Your task to perform on an android device: open wifi settings Image 0: 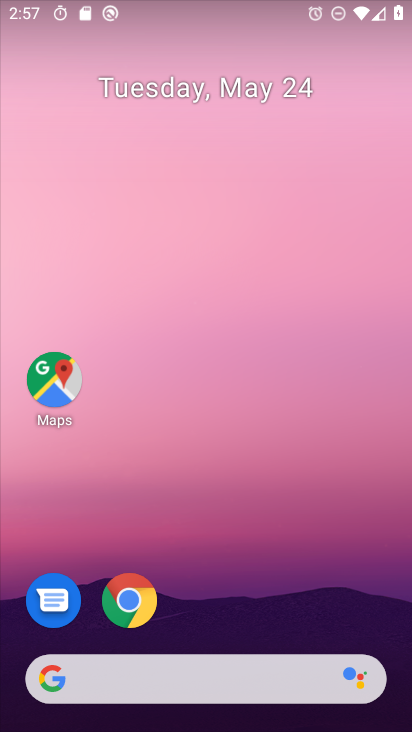
Step 0: drag from (277, 492) to (285, 177)
Your task to perform on an android device: open wifi settings Image 1: 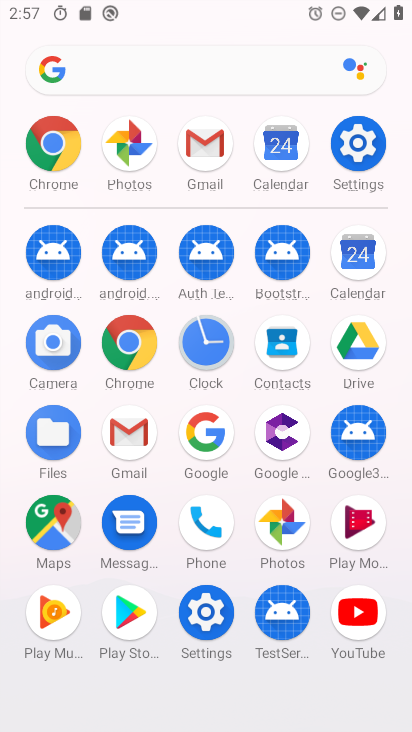
Step 1: click (345, 148)
Your task to perform on an android device: open wifi settings Image 2: 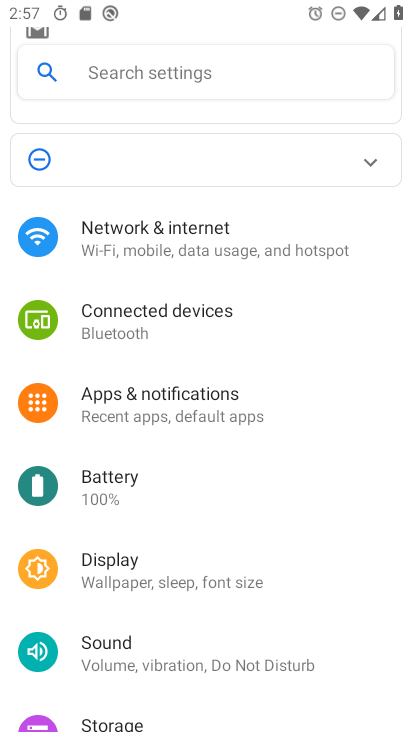
Step 2: click (190, 250)
Your task to perform on an android device: open wifi settings Image 3: 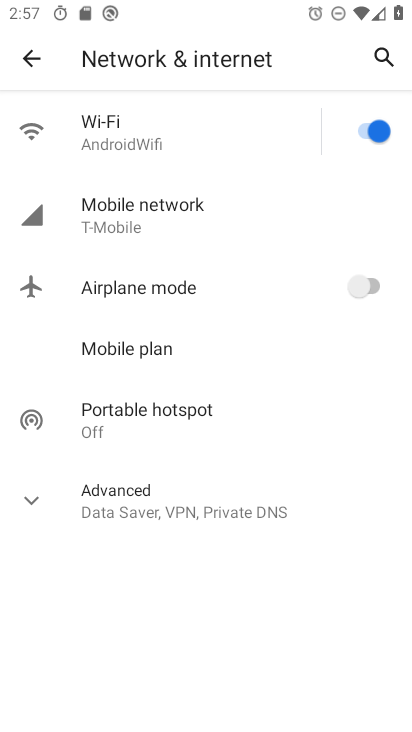
Step 3: click (197, 139)
Your task to perform on an android device: open wifi settings Image 4: 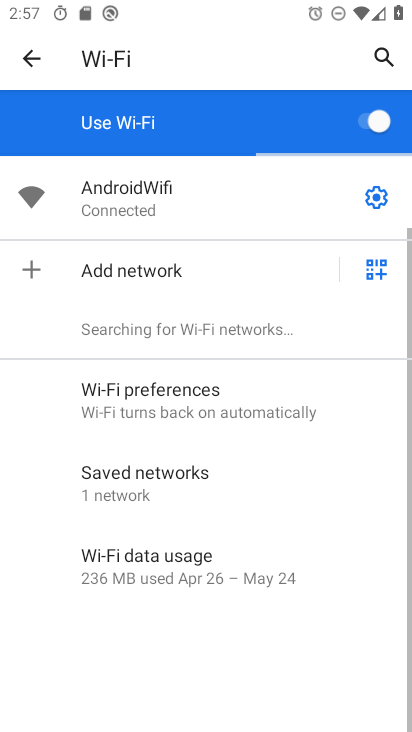
Step 4: click (368, 197)
Your task to perform on an android device: open wifi settings Image 5: 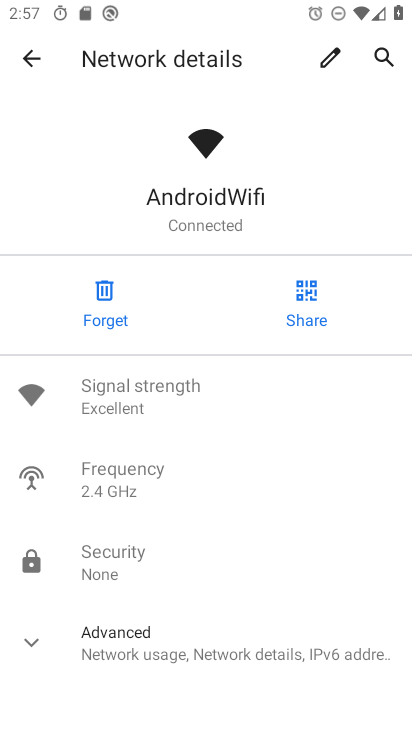
Step 5: task complete